Your task to perform on an android device: Show me recent news Image 0: 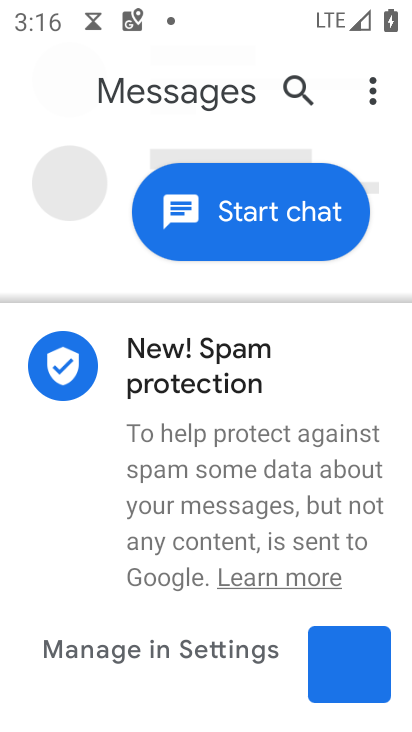
Step 0: press home button
Your task to perform on an android device: Show me recent news Image 1: 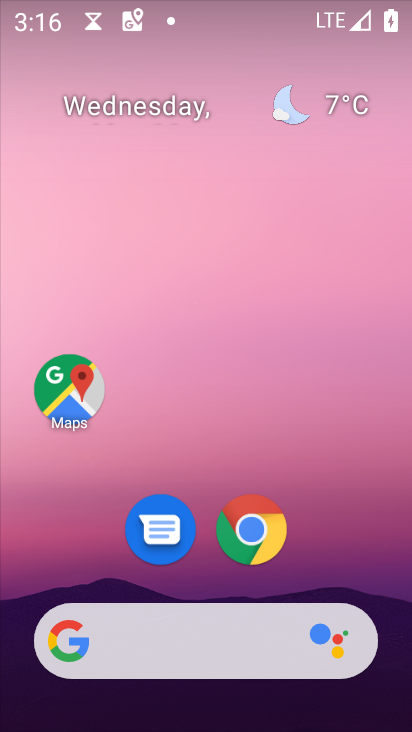
Step 1: drag from (375, 481) to (326, 34)
Your task to perform on an android device: Show me recent news Image 2: 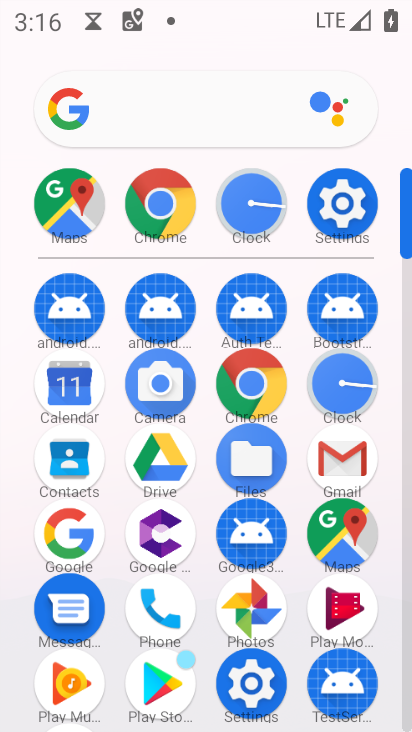
Step 2: click (239, 360)
Your task to perform on an android device: Show me recent news Image 3: 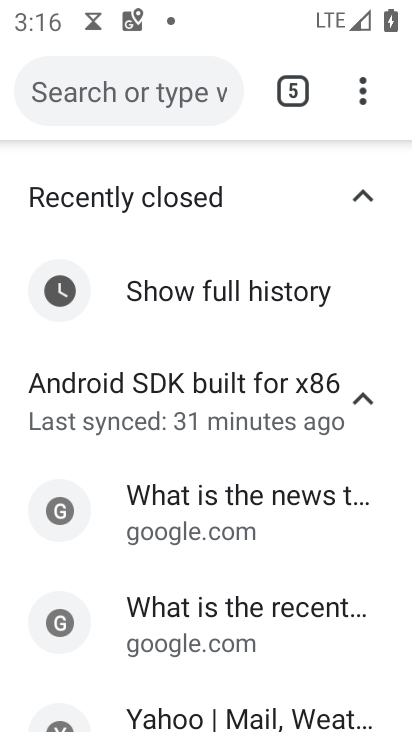
Step 3: task complete